Your task to perform on an android device: Go to ESPN.com Image 0: 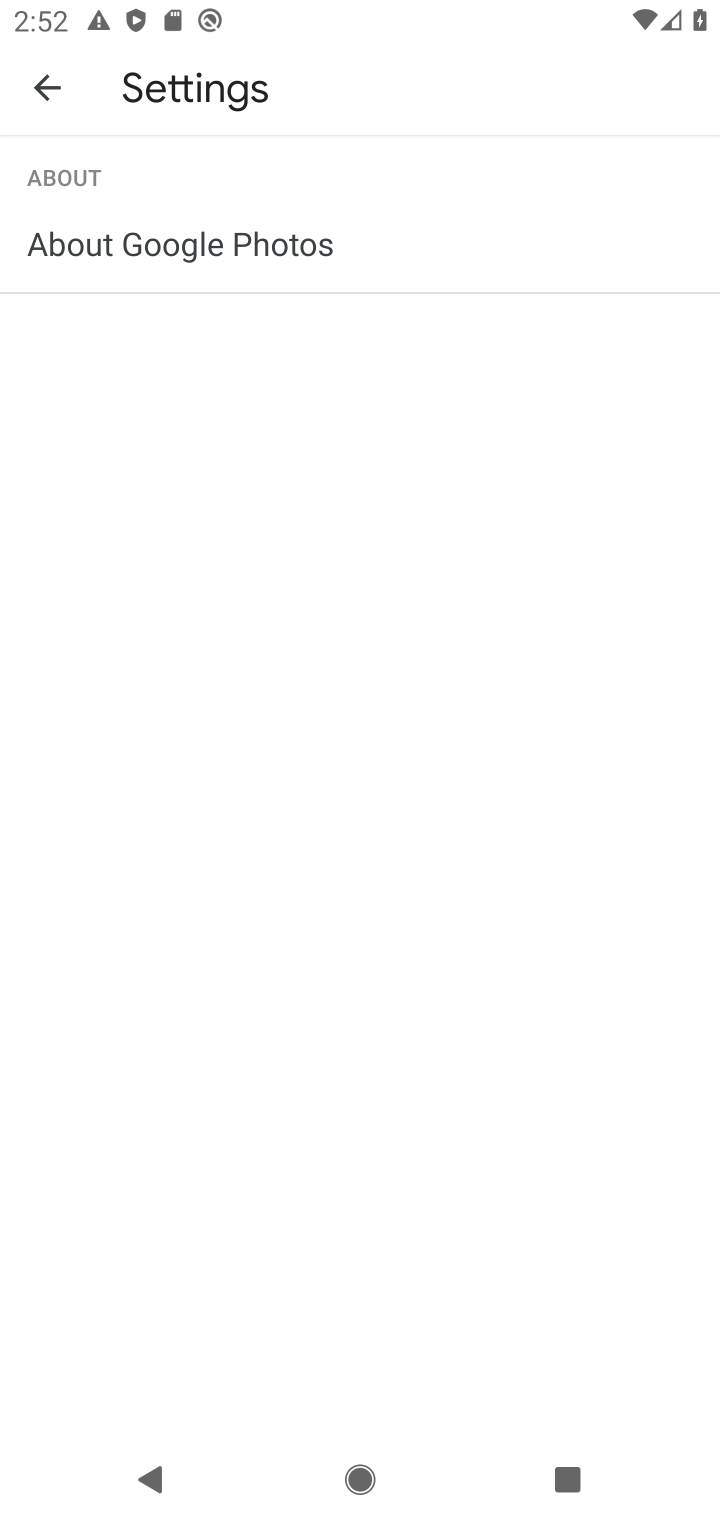
Step 0: press back button
Your task to perform on an android device: Go to ESPN.com Image 1: 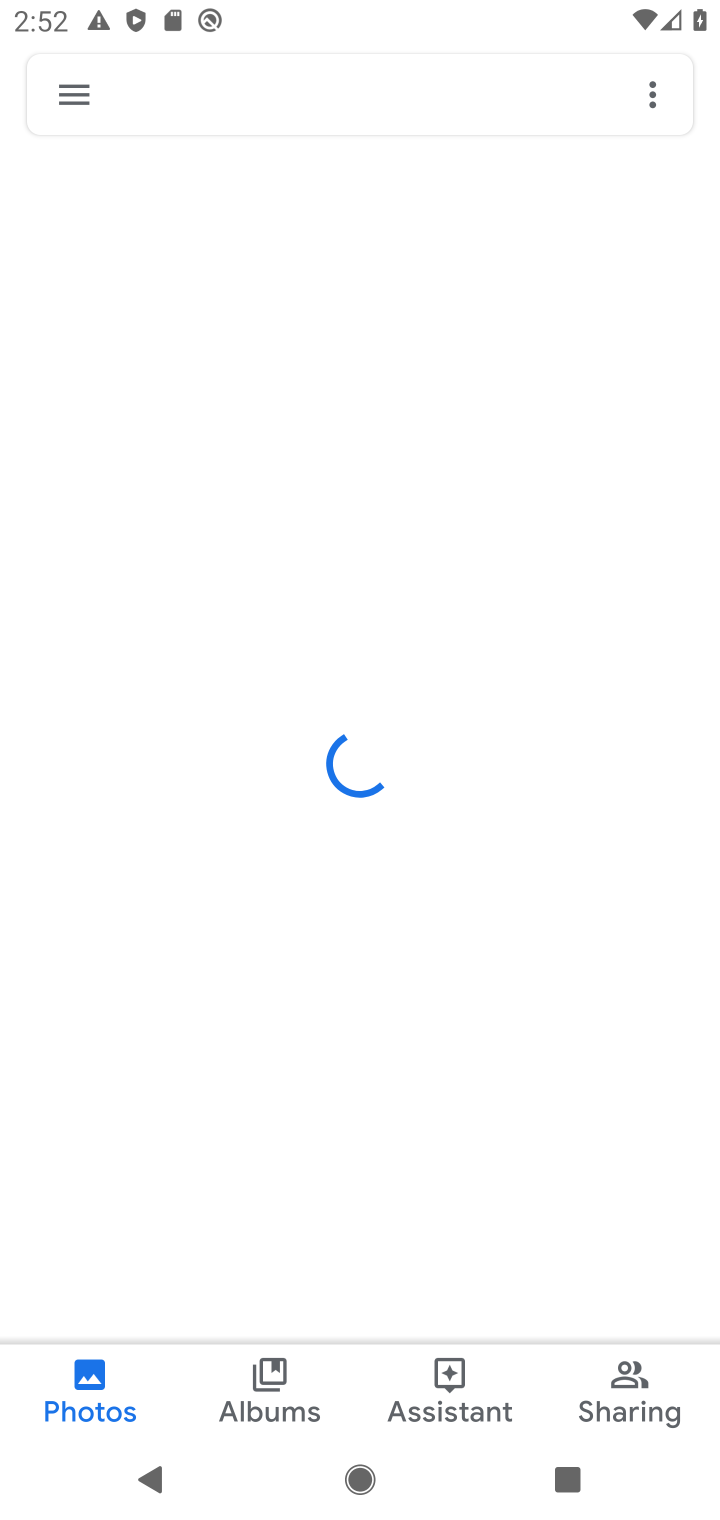
Step 1: press back button
Your task to perform on an android device: Go to ESPN.com Image 2: 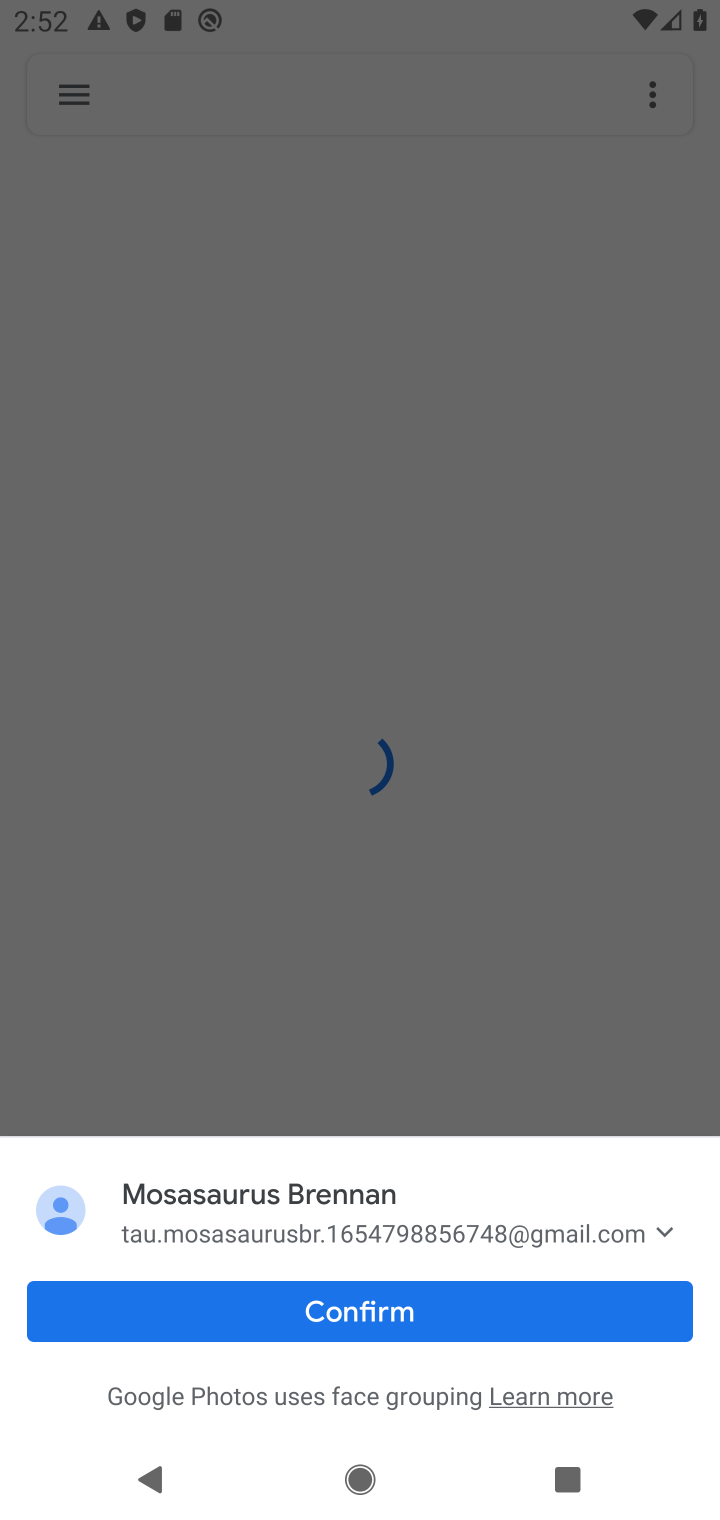
Step 2: press back button
Your task to perform on an android device: Go to ESPN.com Image 3: 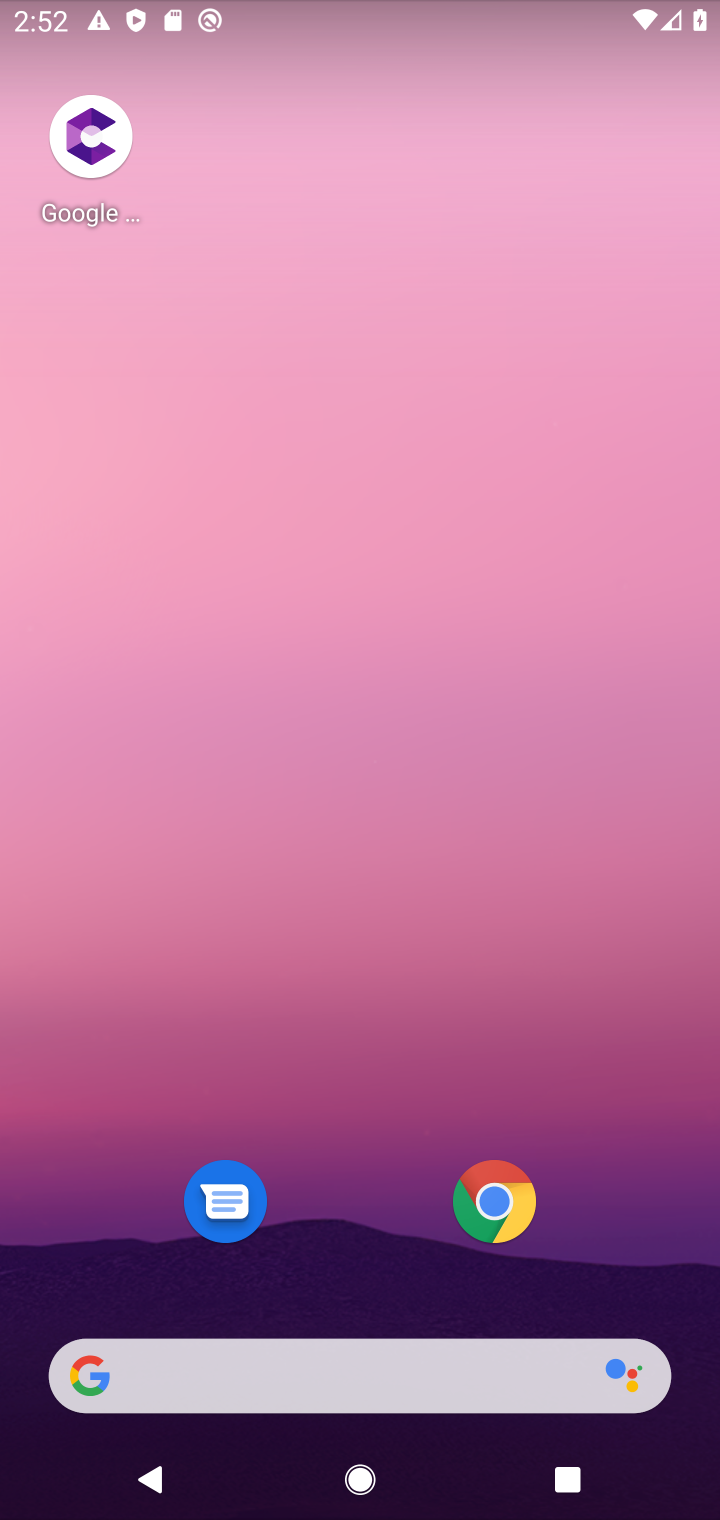
Step 3: press home button
Your task to perform on an android device: Go to ESPN.com Image 4: 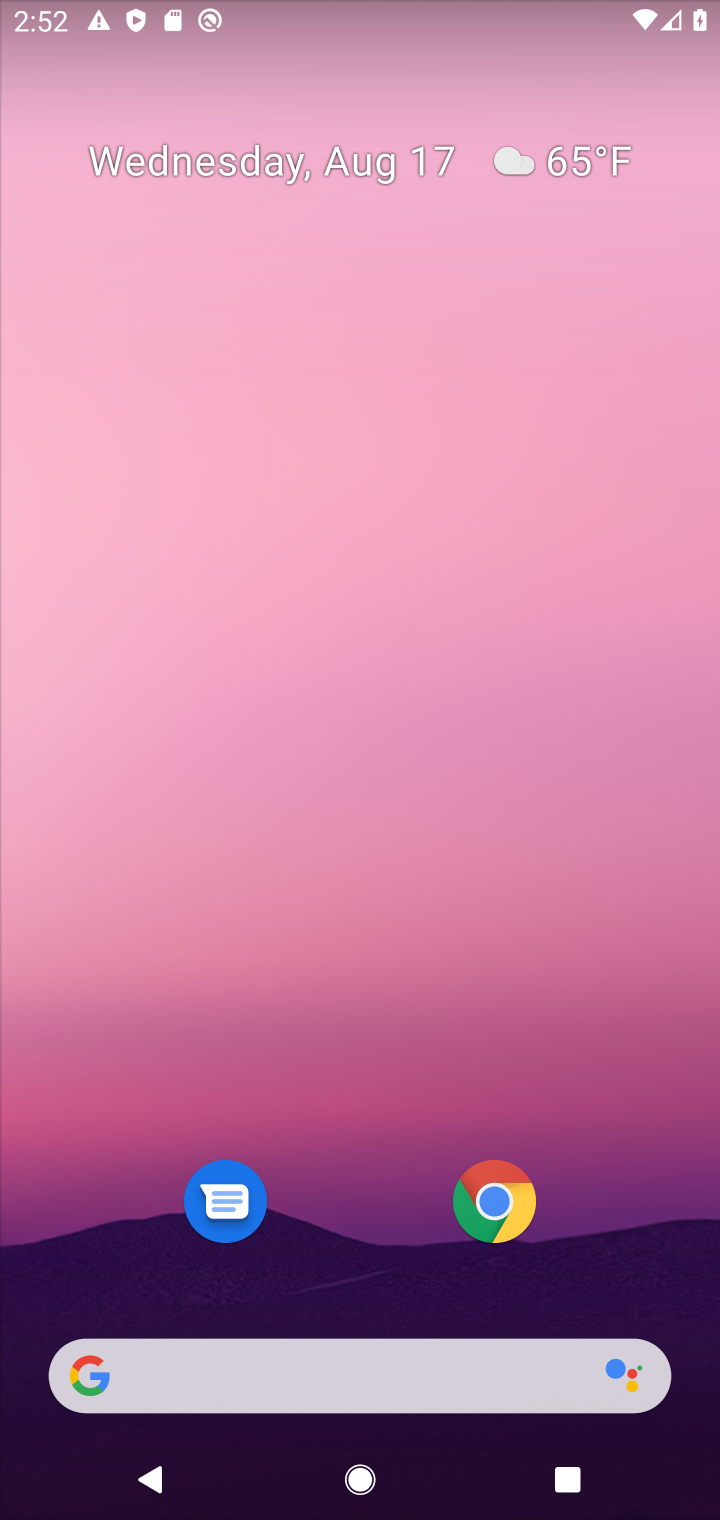
Step 4: click (496, 1222)
Your task to perform on an android device: Go to ESPN.com Image 5: 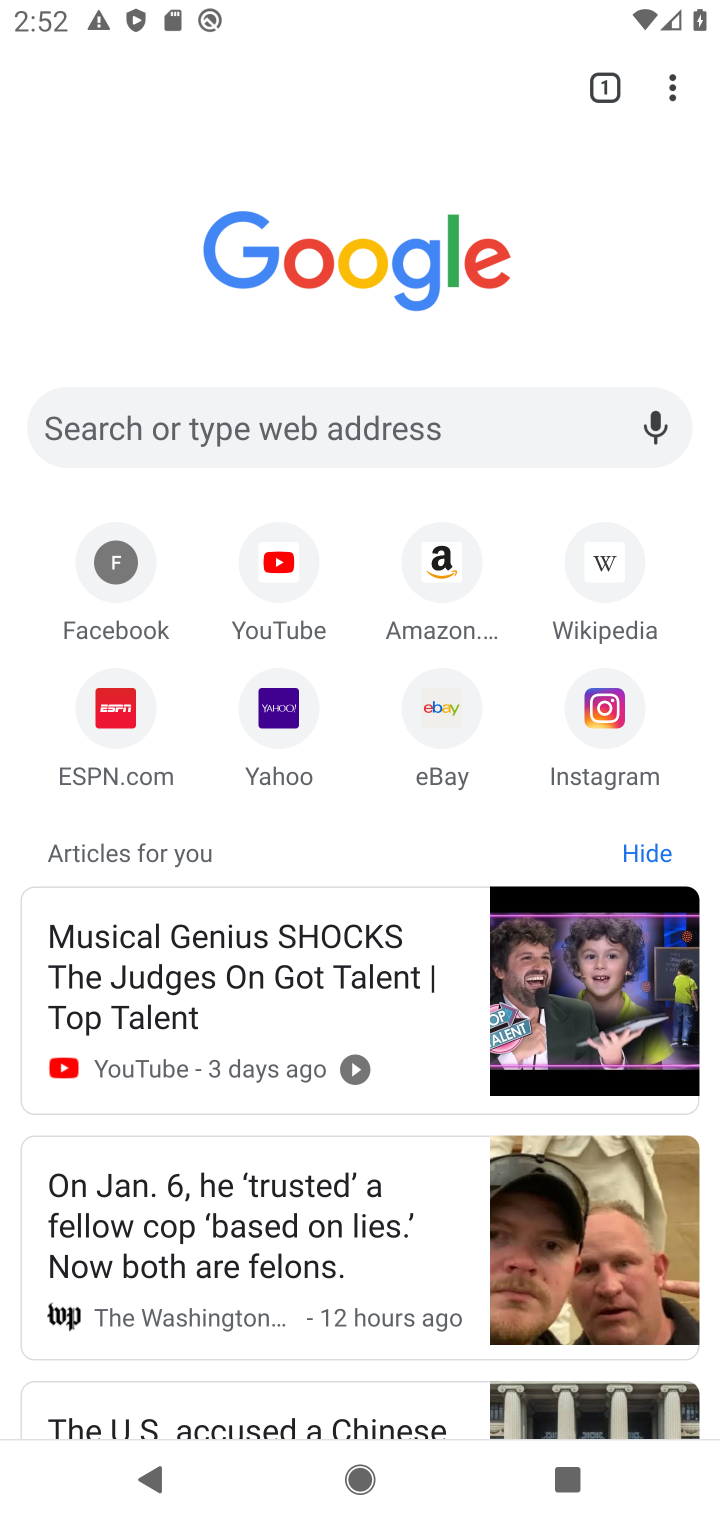
Step 5: click (90, 691)
Your task to perform on an android device: Go to ESPN.com Image 6: 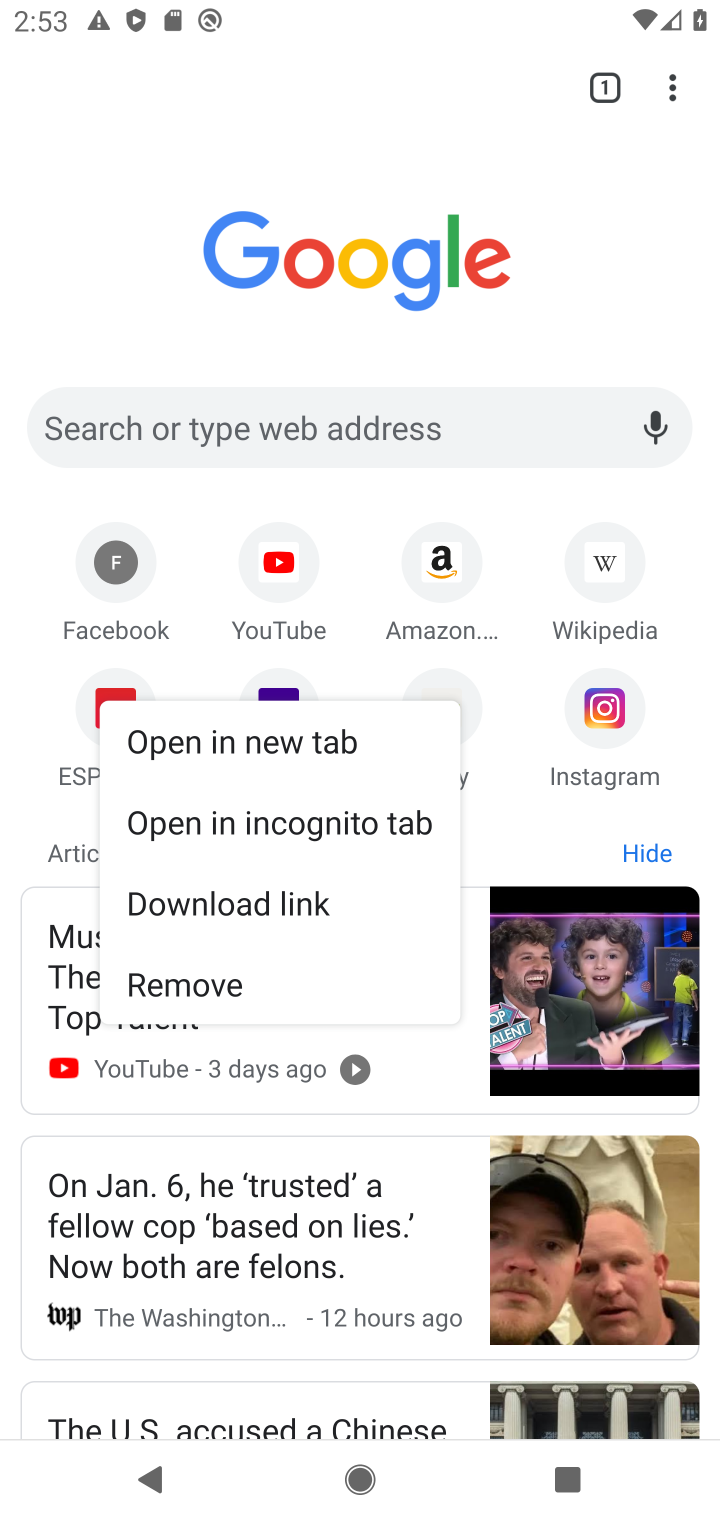
Step 6: click (44, 735)
Your task to perform on an android device: Go to ESPN.com Image 7: 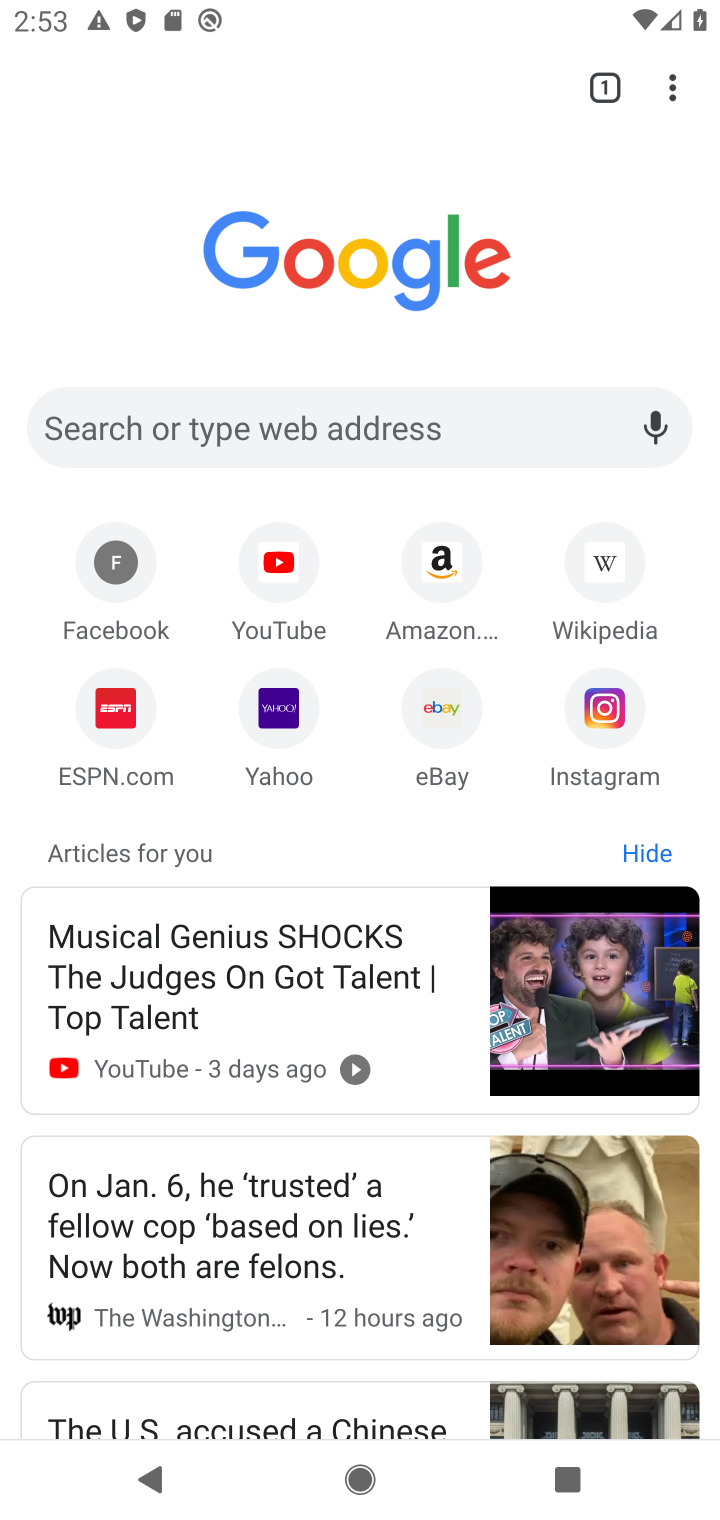
Step 7: click (132, 711)
Your task to perform on an android device: Go to ESPN.com Image 8: 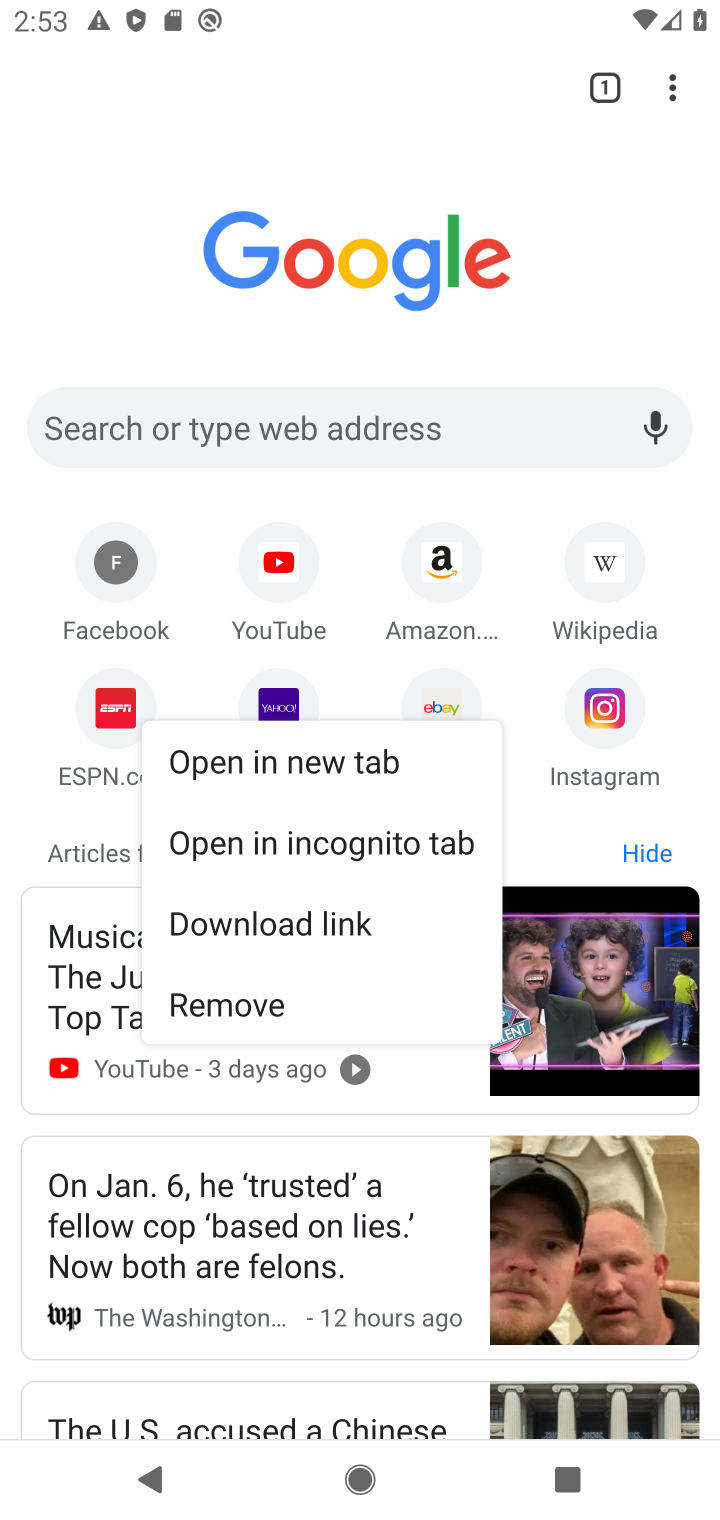
Step 8: click (105, 711)
Your task to perform on an android device: Go to ESPN.com Image 9: 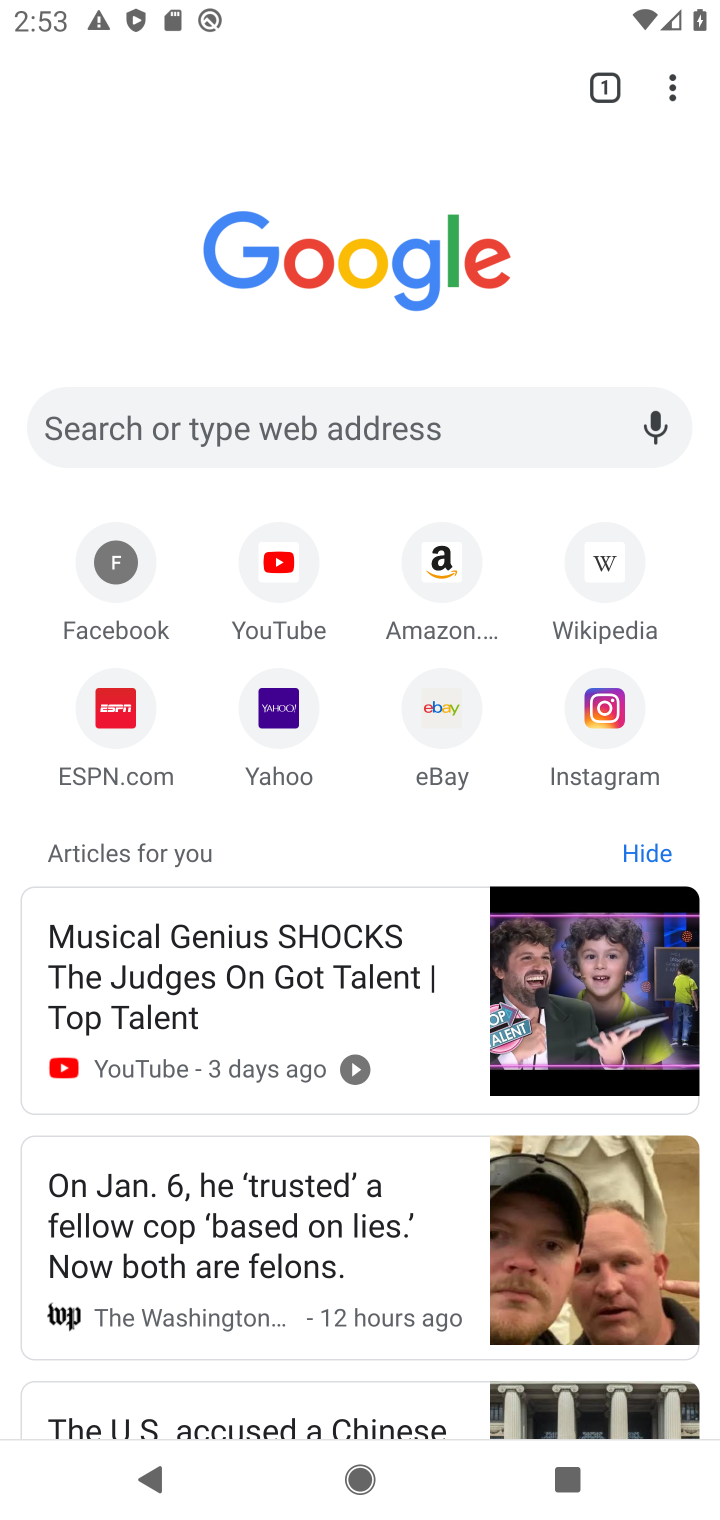
Step 9: click (114, 718)
Your task to perform on an android device: Go to ESPN.com Image 10: 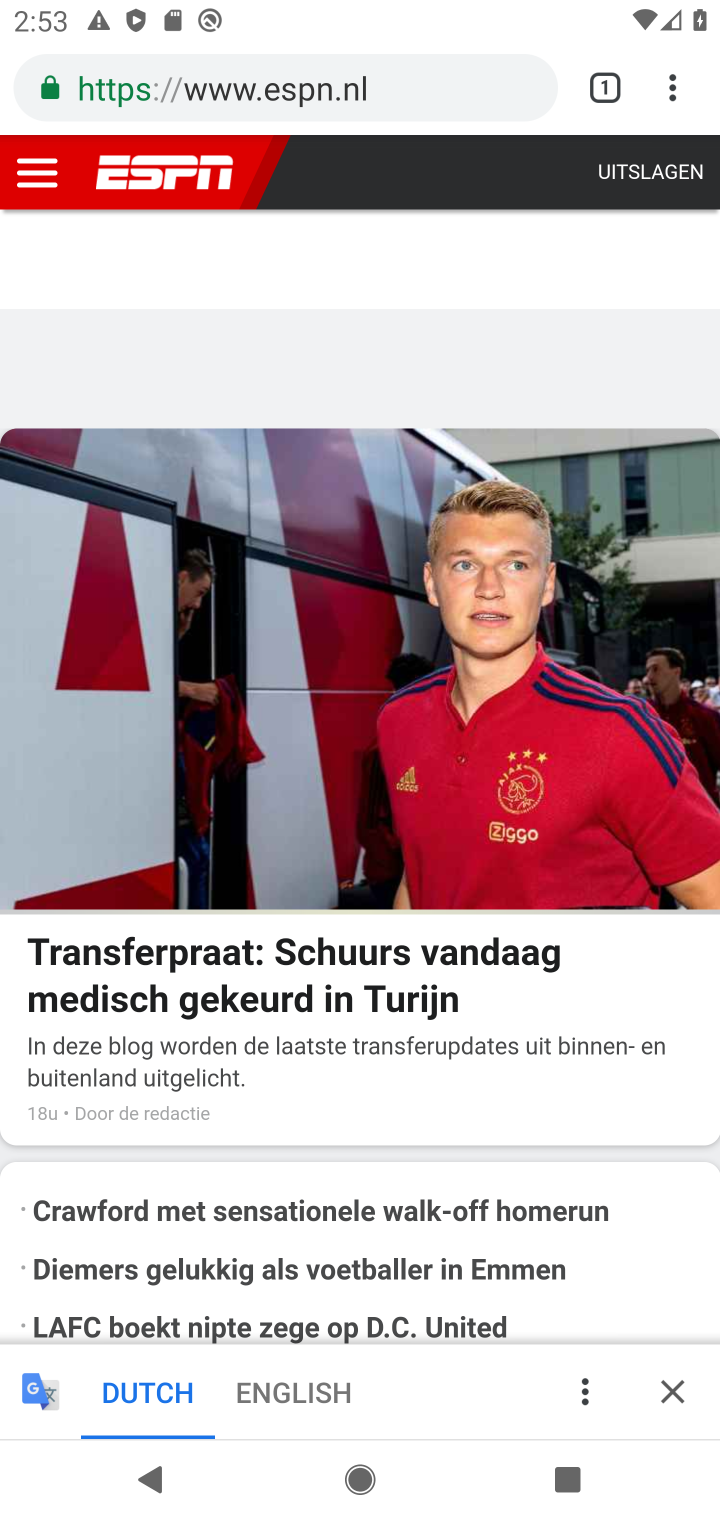
Step 10: task complete